Your task to perform on an android device: turn off airplane mode Image 0: 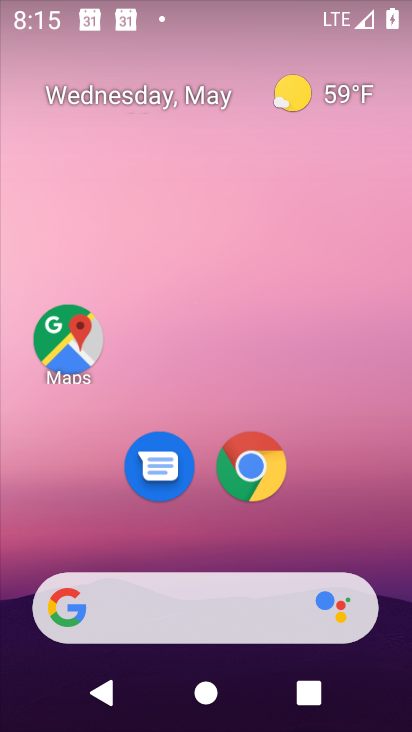
Step 0: drag from (340, 523) to (348, 197)
Your task to perform on an android device: turn off airplane mode Image 1: 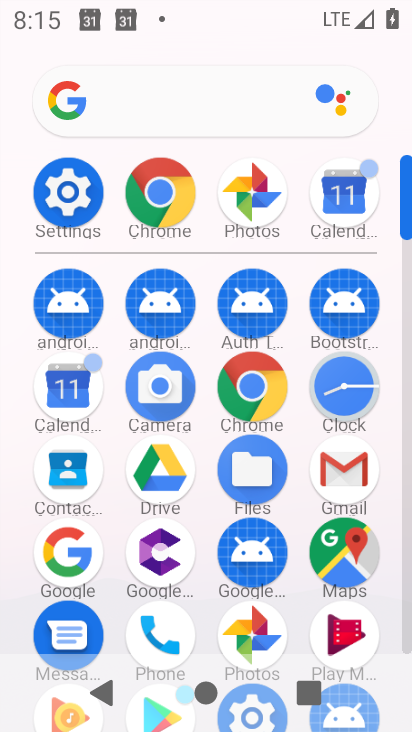
Step 1: click (74, 182)
Your task to perform on an android device: turn off airplane mode Image 2: 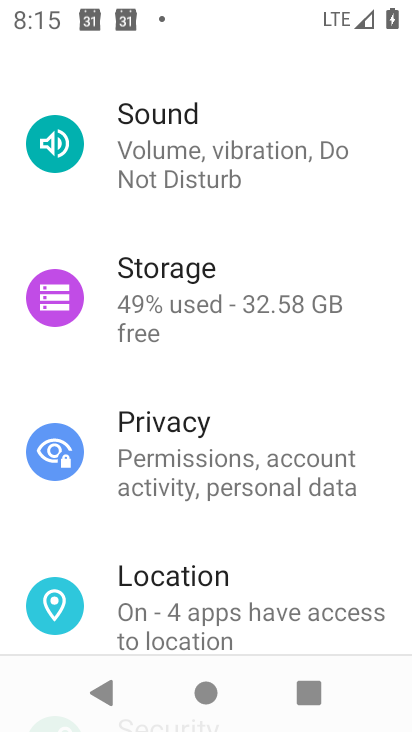
Step 2: drag from (261, 156) to (244, 553)
Your task to perform on an android device: turn off airplane mode Image 3: 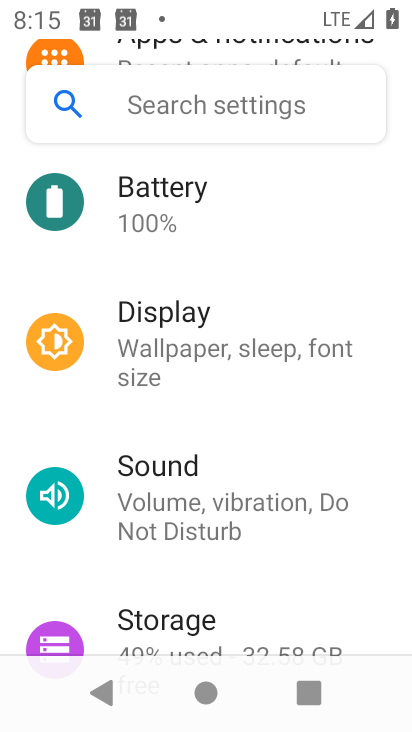
Step 3: drag from (223, 225) to (212, 639)
Your task to perform on an android device: turn off airplane mode Image 4: 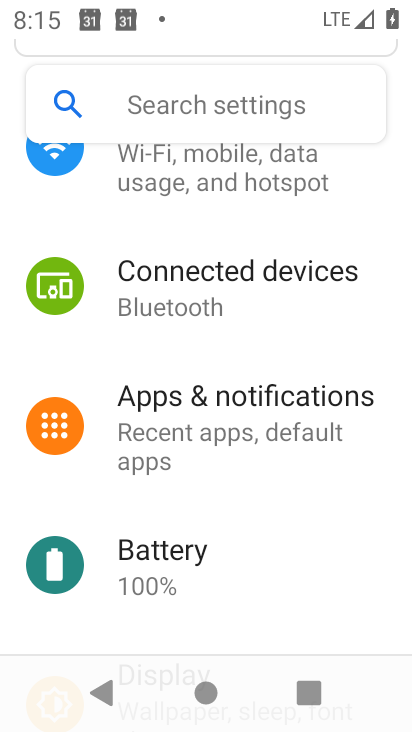
Step 4: drag from (201, 189) to (220, 603)
Your task to perform on an android device: turn off airplane mode Image 5: 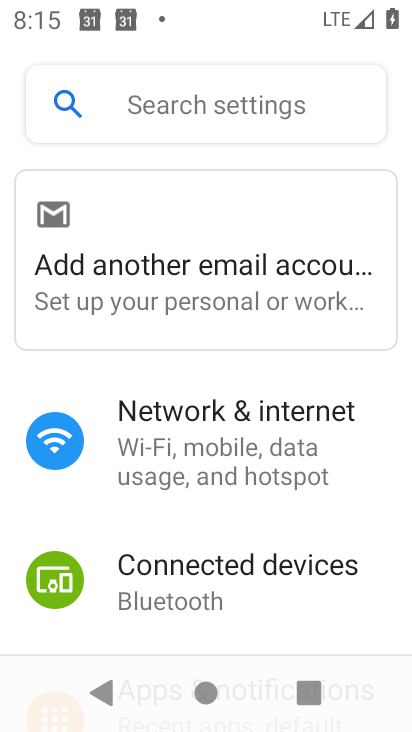
Step 5: click (152, 421)
Your task to perform on an android device: turn off airplane mode Image 6: 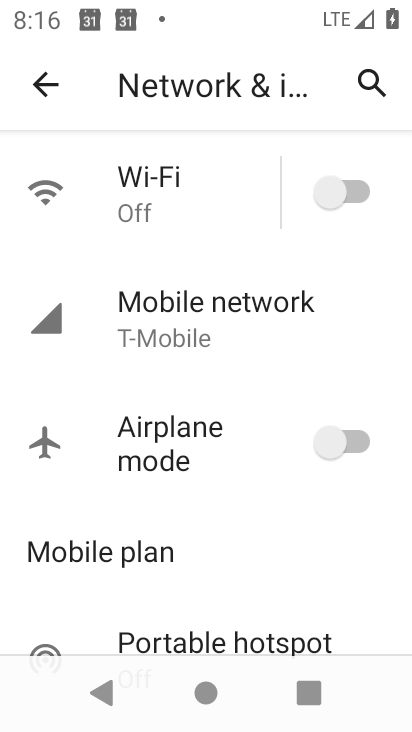
Step 6: task complete